Your task to perform on an android device: turn pop-ups on in chrome Image 0: 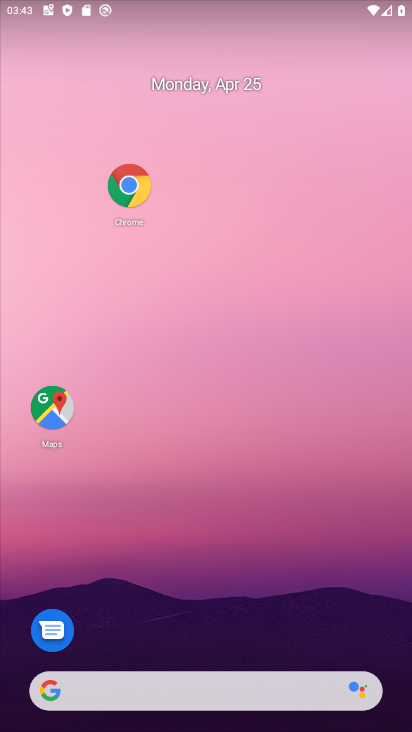
Step 0: click (130, 184)
Your task to perform on an android device: turn pop-ups on in chrome Image 1: 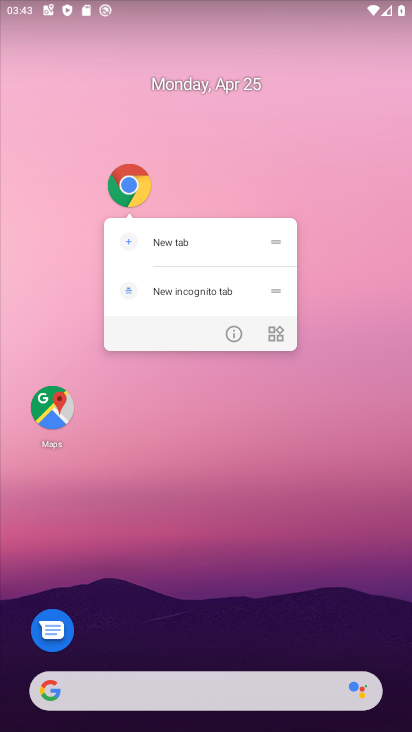
Step 1: click (227, 331)
Your task to perform on an android device: turn pop-ups on in chrome Image 2: 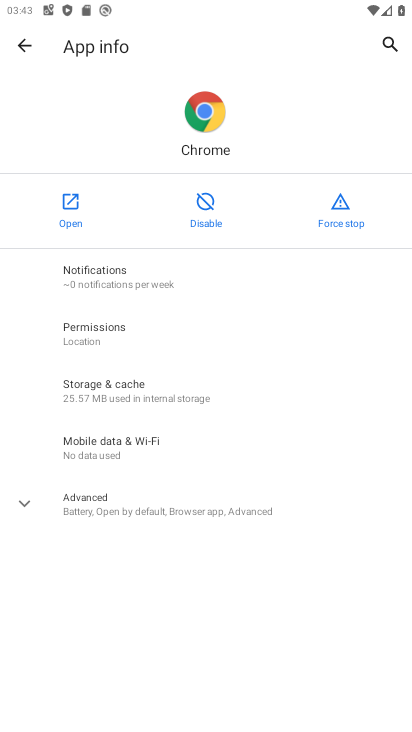
Step 2: click (60, 204)
Your task to perform on an android device: turn pop-ups on in chrome Image 3: 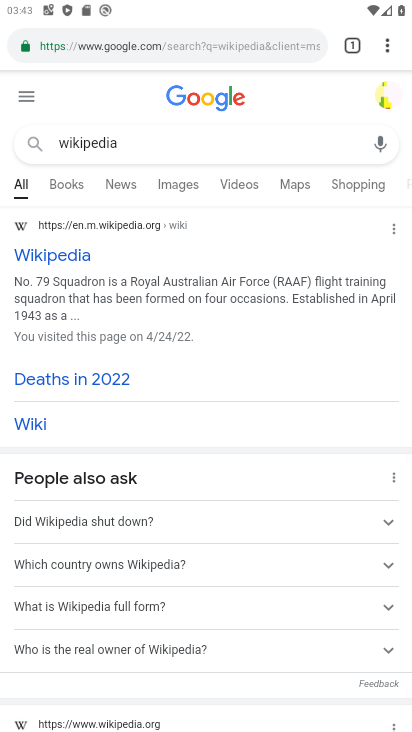
Step 3: click (384, 49)
Your task to perform on an android device: turn pop-ups on in chrome Image 4: 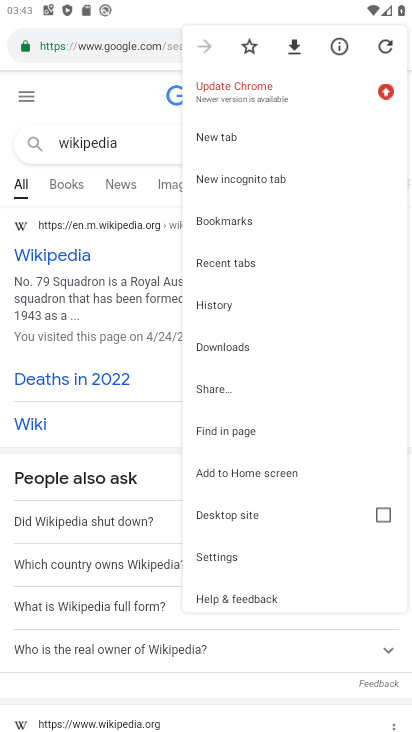
Step 4: click (244, 563)
Your task to perform on an android device: turn pop-ups on in chrome Image 5: 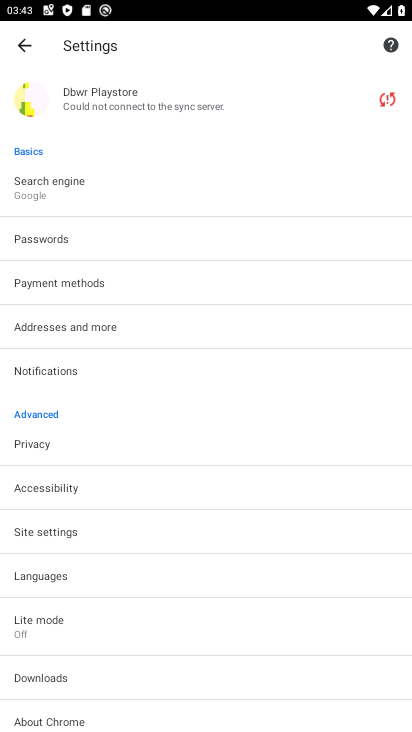
Step 5: click (134, 528)
Your task to perform on an android device: turn pop-ups on in chrome Image 6: 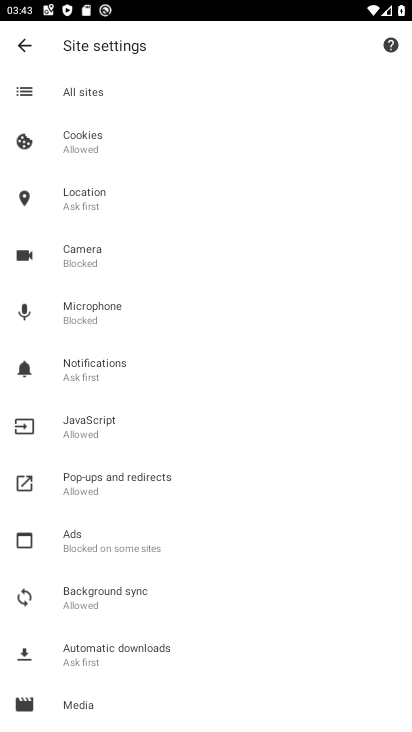
Step 6: click (141, 488)
Your task to perform on an android device: turn pop-ups on in chrome Image 7: 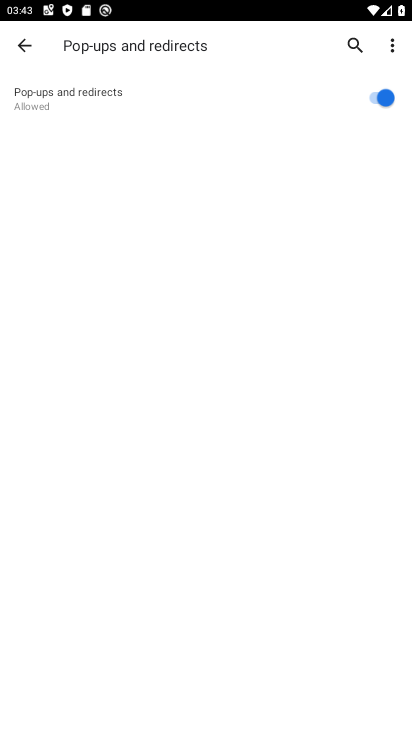
Step 7: task complete